Your task to perform on an android device: Open wifi settings Image 0: 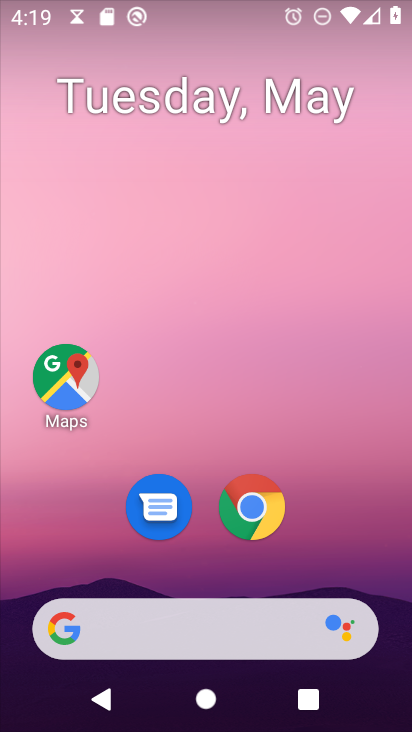
Step 0: drag from (309, 570) to (292, 77)
Your task to perform on an android device: Open wifi settings Image 1: 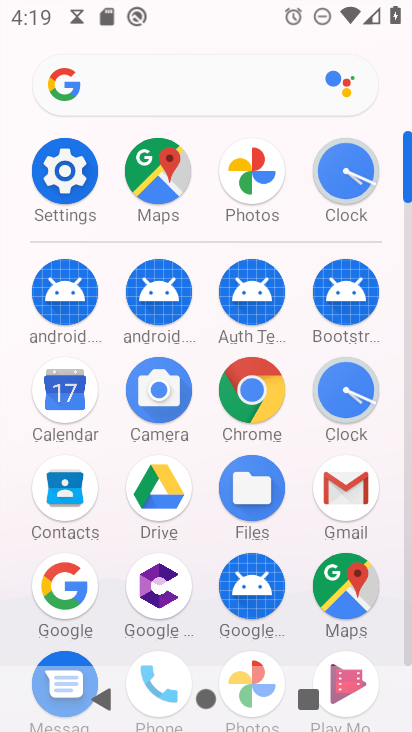
Step 1: click (69, 183)
Your task to perform on an android device: Open wifi settings Image 2: 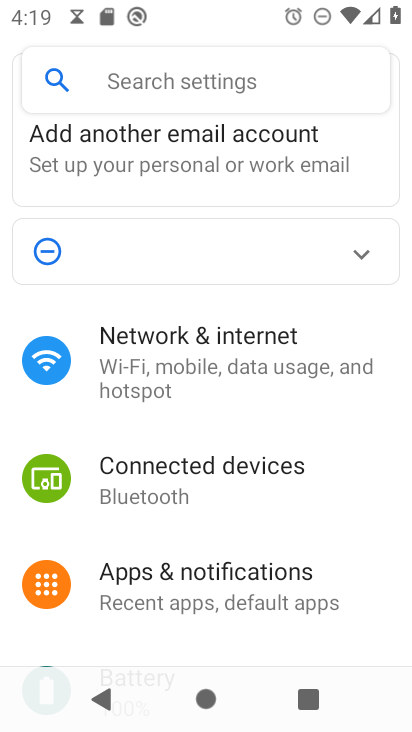
Step 2: click (151, 342)
Your task to perform on an android device: Open wifi settings Image 3: 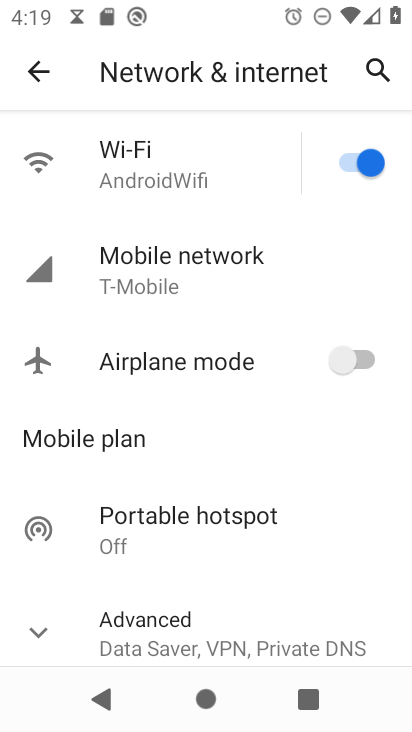
Step 3: click (149, 181)
Your task to perform on an android device: Open wifi settings Image 4: 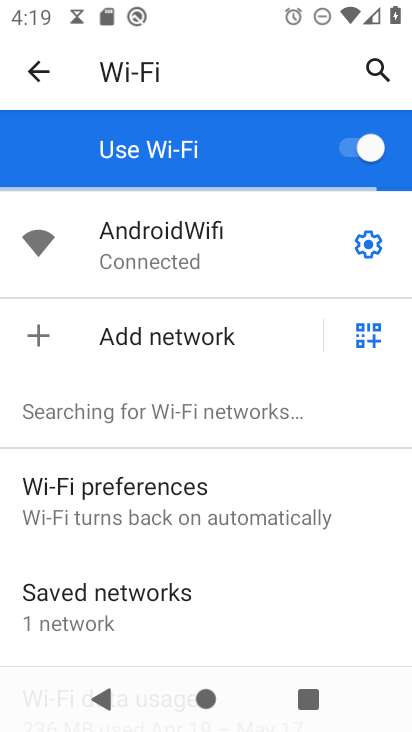
Step 4: task complete